Your task to perform on an android device: open device folders in google photos Image 0: 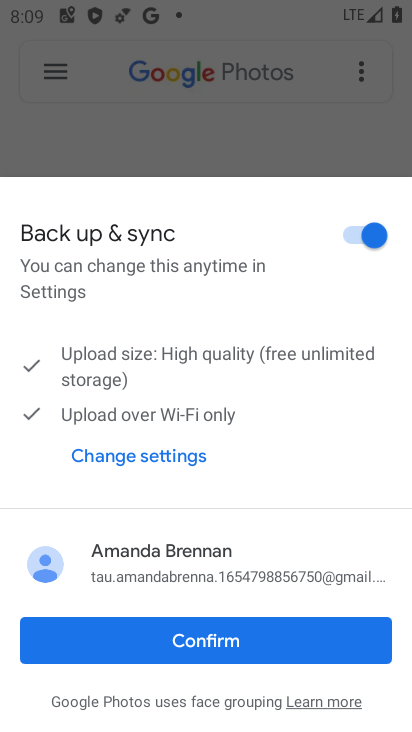
Step 0: click (353, 636)
Your task to perform on an android device: open device folders in google photos Image 1: 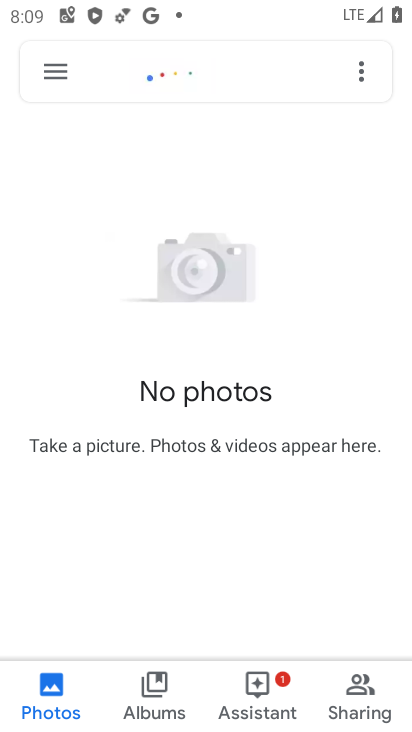
Step 1: click (57, 62)
Your task to perform on an android device: open device folders in google photos Image 2: 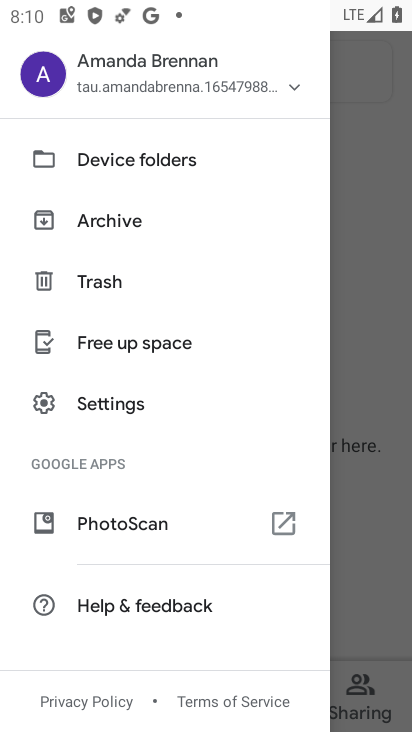
Step 2: click (118, 163)
Your task to perform on an android device: open device folders in google photos Image 3: 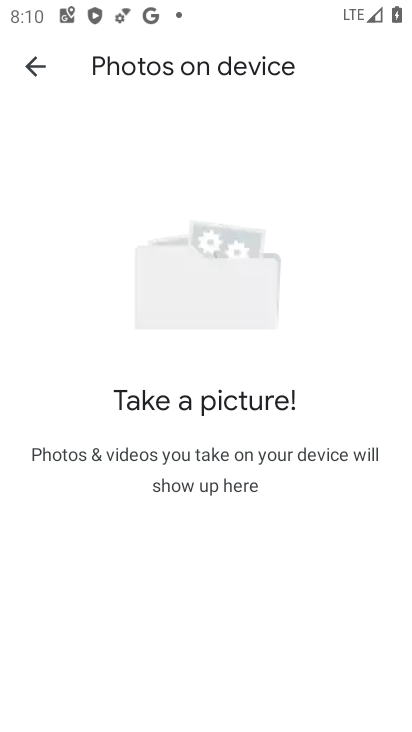
Step 3: task complete